Your task to perform on an android device: delete location history Image 0: 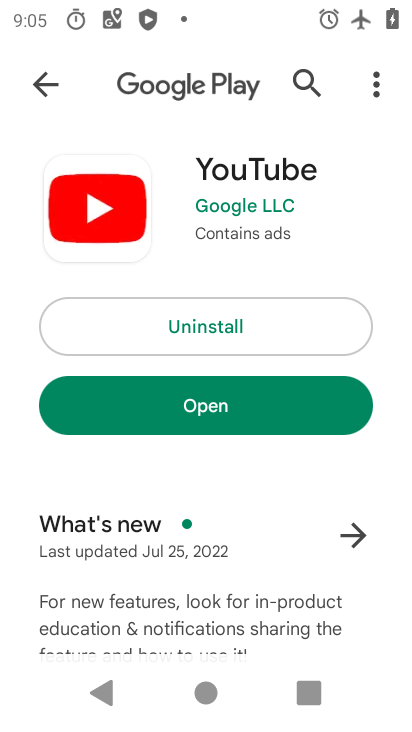
Step 0: press home button
Your task to perform on an android device: delete location history Image 1: 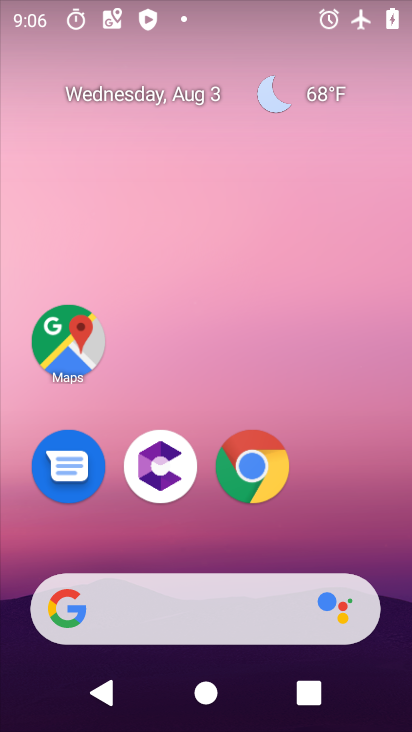
Step 1: drag from (340, 529) to (223, 84)
Your task to perform on an android device: delete location history Image 2: 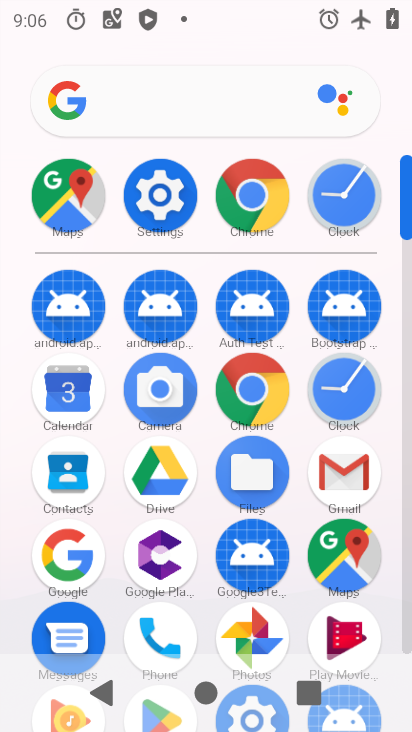
Step 2: click (335, 570)
Your task to perform on an android device: delete location history Image 3: 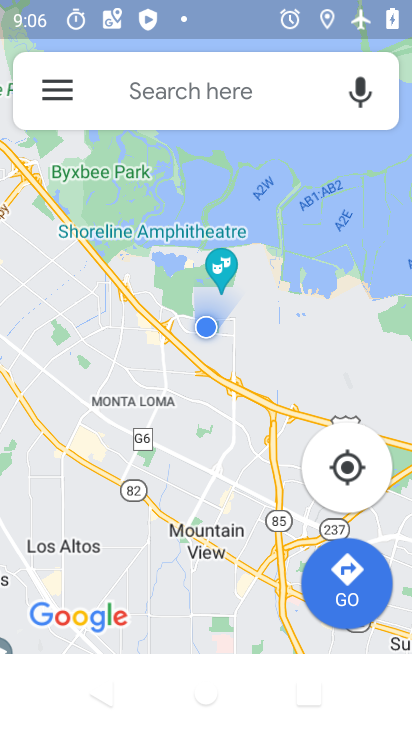
Step 3: click (66, 96)
Your task to perform on an android device: delete location history Image 4: 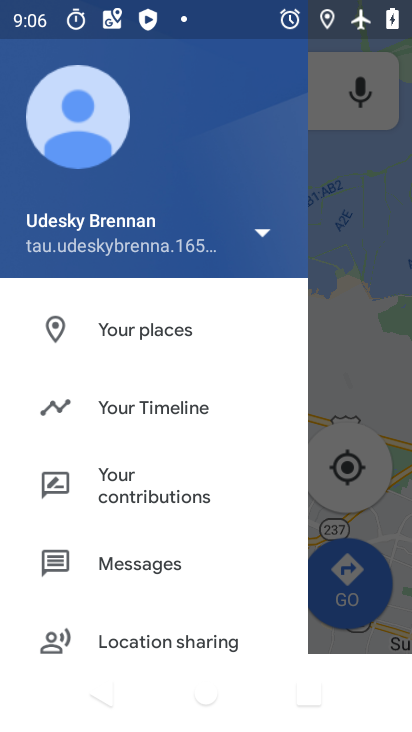
Step 4: drag from (173, 618) to (140, 110)
Your task to perform on an android device: delete location history Image 5: 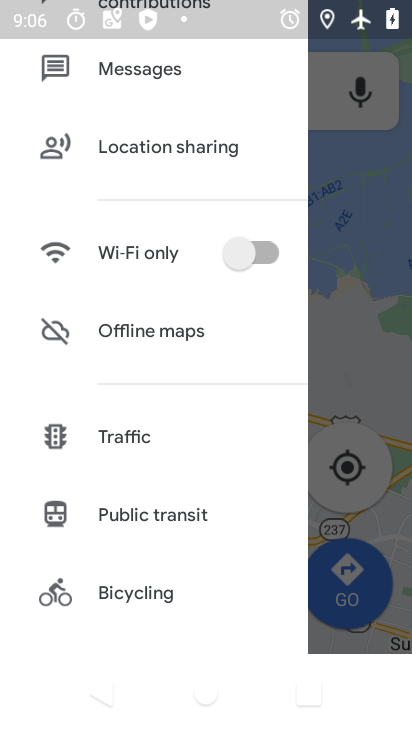
Step 5: drag from (234, 556) to (162, 102)
Your task to perform on an android device: delete location history Image 6: 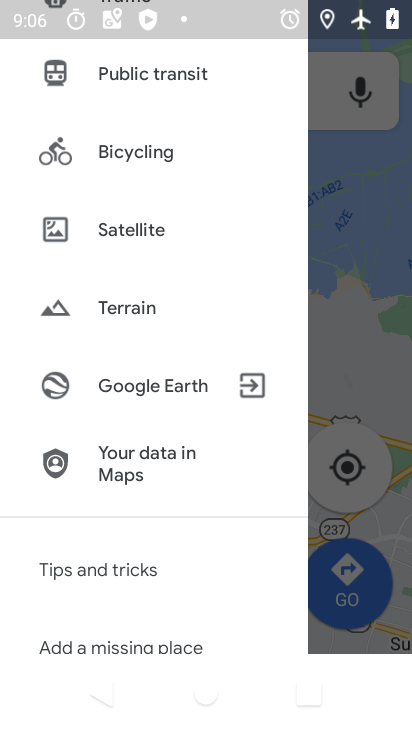
Step 6: drag from (219, 593) to (192, 182)
Your task to perform on an android device: delete location history Image 7: 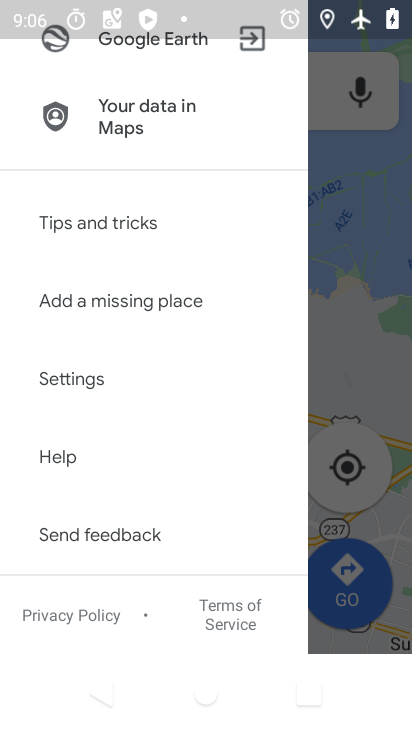
Step 7: click (69, 375)
Your task to perform on an android device: delete location history Image 8: 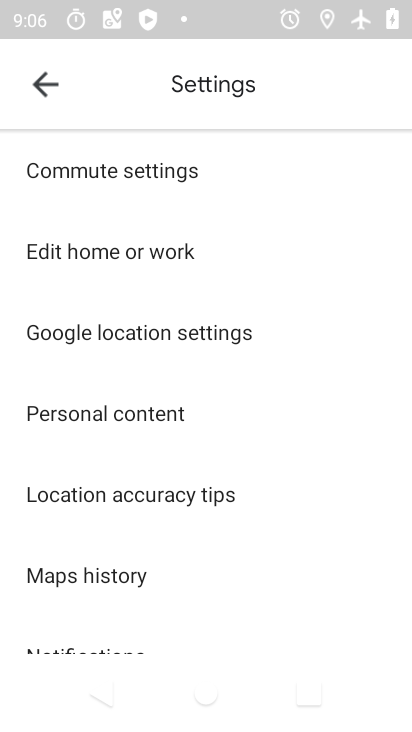
Step 8: click (82, 575)
Your task to perform on an android device: delete location history Image 9: 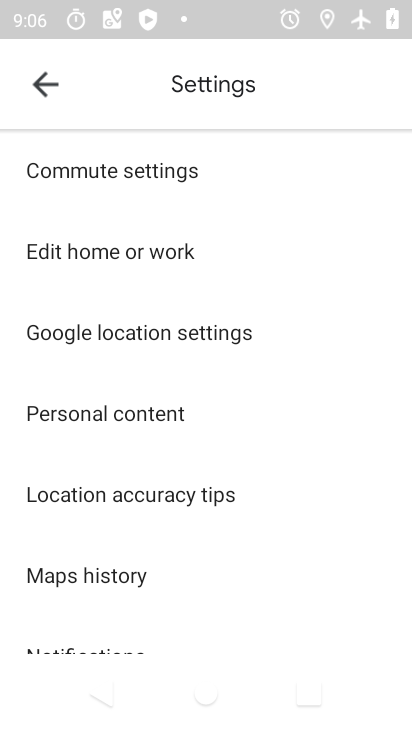
Step 9: task complete